Your task to perform on an android device: turn pop-ups off in chrome Image 0: 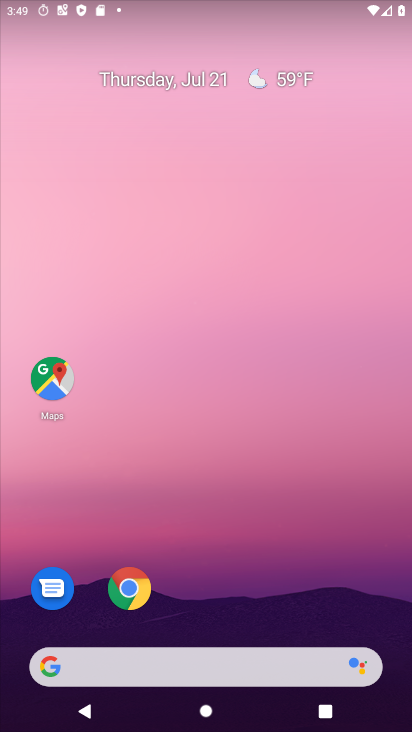
Step 0: click (126, 592)
Your task to perform on an android device: turn pop-ups off in chrome Image 1: 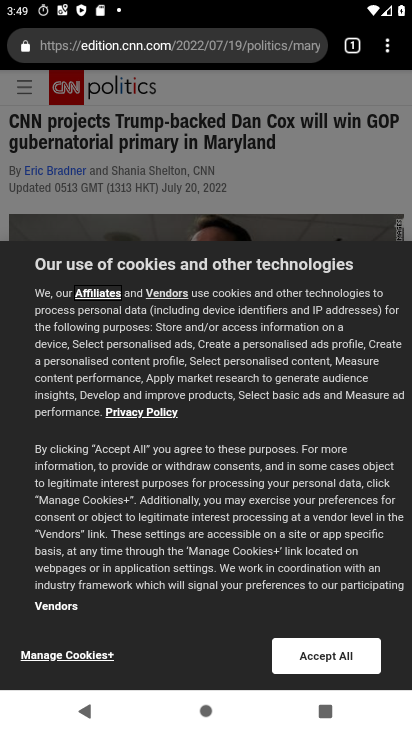
Step 1: click (377, 53)
Your task to perform on an android device: turn pop-ups off in chrome Image 2: 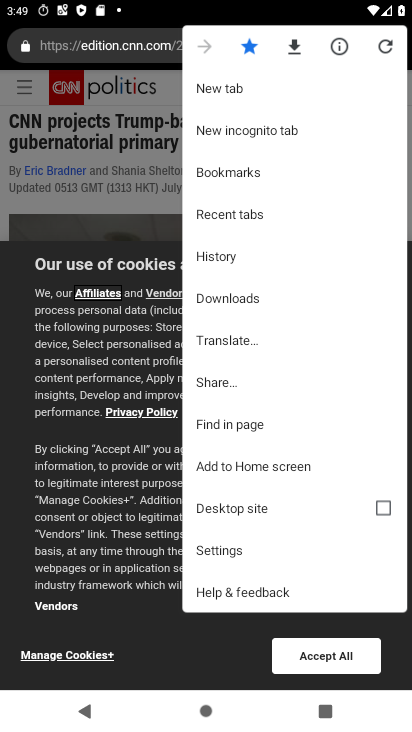
Step 2: click (229, 554)
Your task to perform on an android device: turn pop-ups off in chrome Image 3: 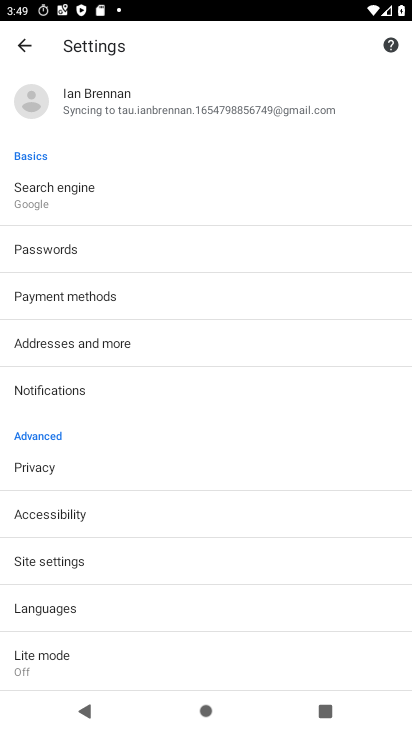
Step 3: click (84, 566)
Your task to perform on an android device: turn pop-ups off in chrome Image 4: 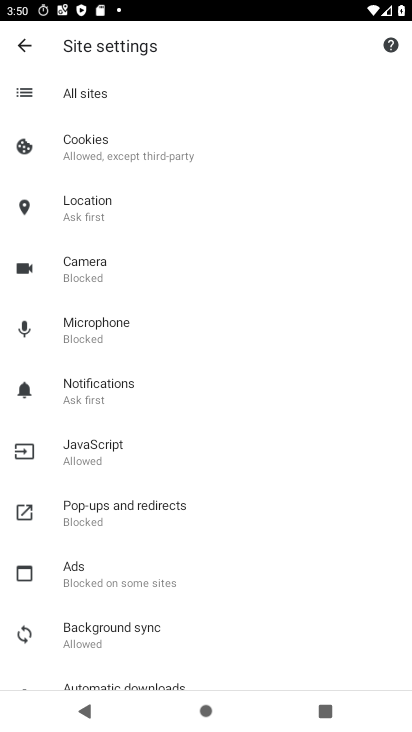
Step 4: click (127, 512)
Your task to perform on an android device: turn pop-ups off in chrome Image 5: 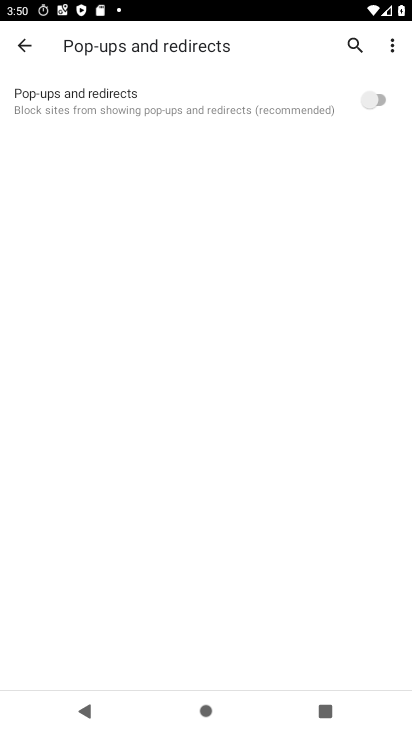
Step 5: task complete